Your task to perform on an android device: change the clock style Image 0: 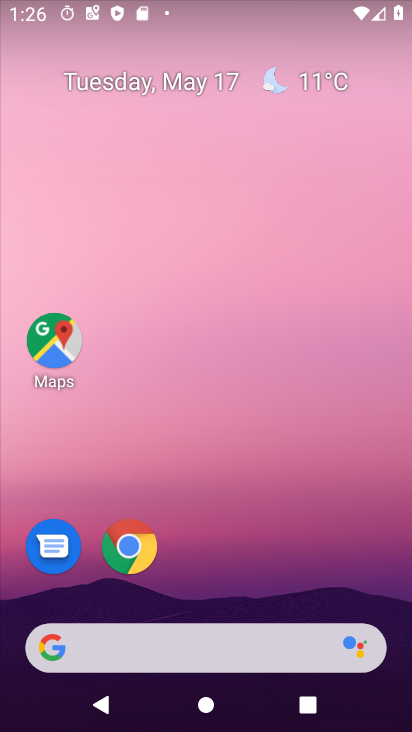
Step 0: drag from (194, 649) to (297, 134)
Your task to perform on an android device: change the clock style Image 1: 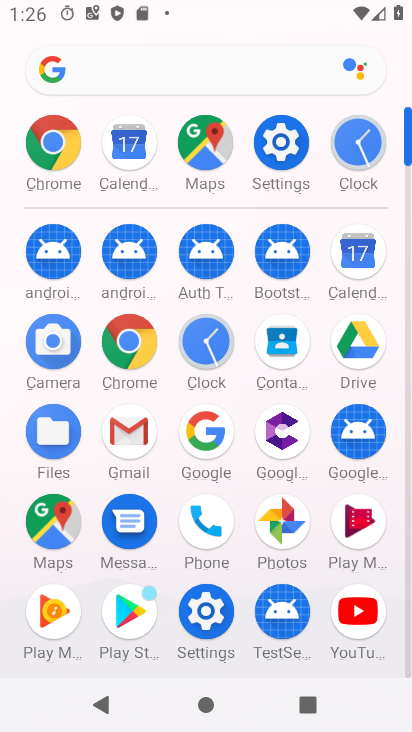
Step 1: click (203, 344)
Your task to perform on an android device: change the clock style Image 2: 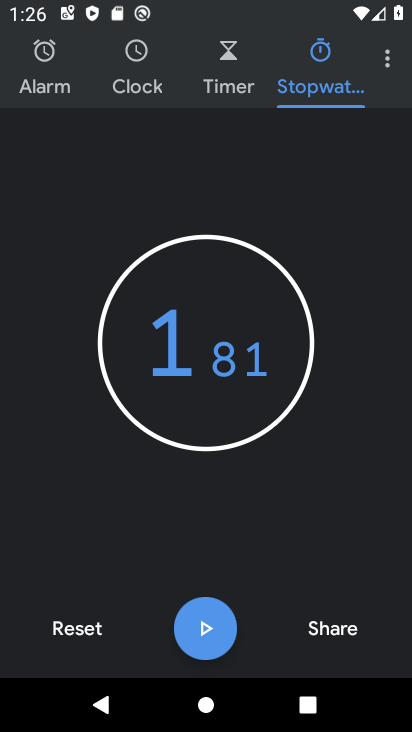
Step 2: click (384, 62)
Your task to perform on an android device: change the clock style Image 3: 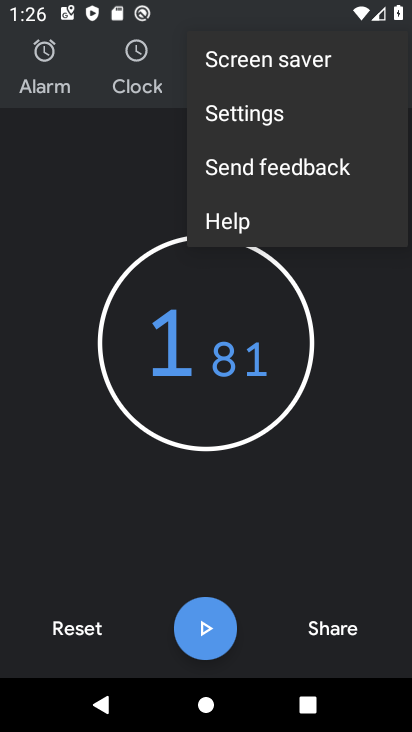
Step 3: click (261, 105)
Your task to perform on an android device: change the clock style Image 4: 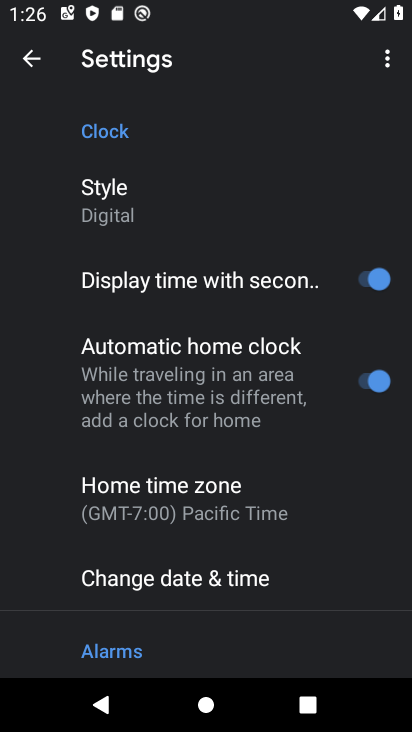
Step 4: click (129, 199)
Your task to perform on an android device: change the clock style Image 5: 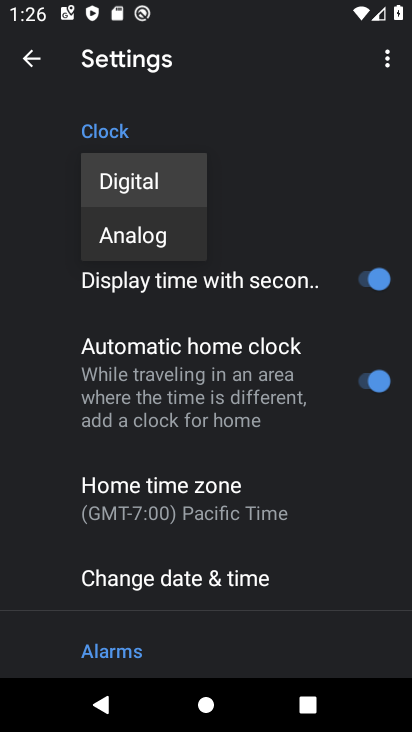
Step 5: click (140, 236)
Your task to perform on an android device: change the clock style Image 6: 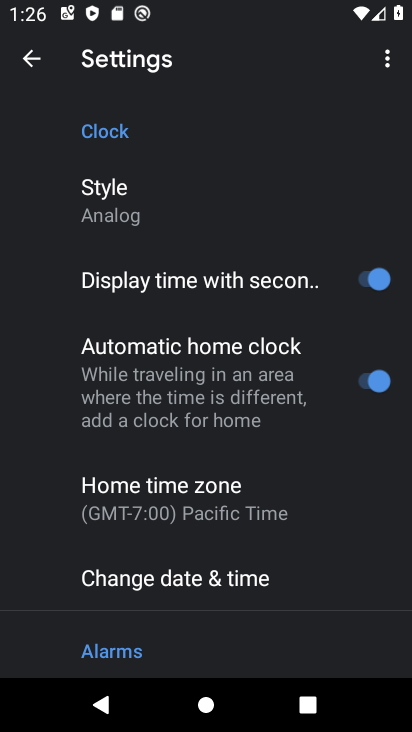
Step 6: task complete